Your task to perform on an android device: Set the phone to "Do not disturb". Image 0: 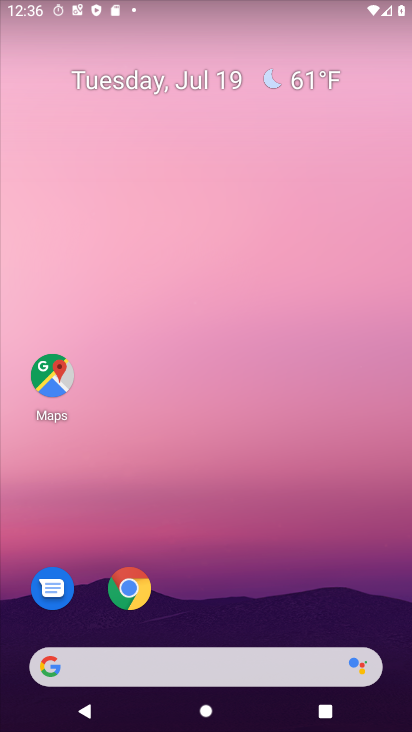
Step 0: drag from (305, 529) to (276, 102)
Your task to perform on an android device: Set the phone to "Do not disturb". Image 1: 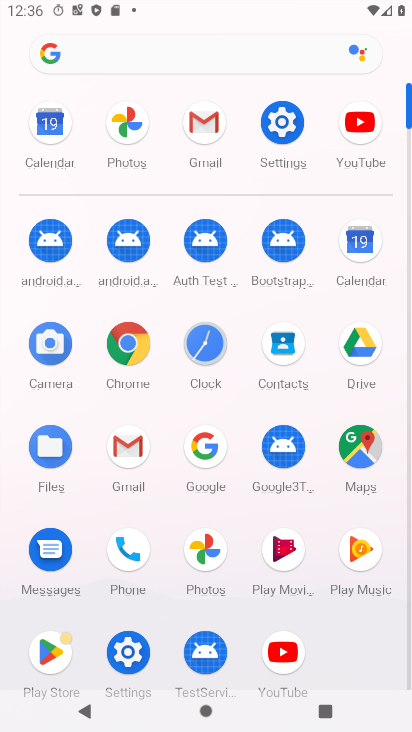
Step 1: click (130, 641)
Your task to perform on an android device: Set the phone to "Do not disturb". Image 2: 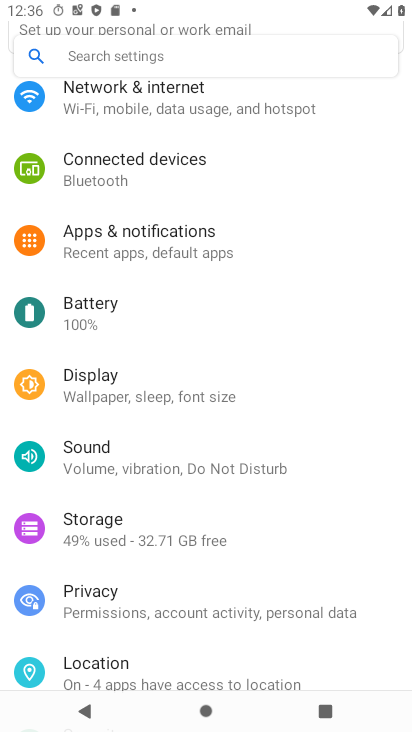
Step 2: click (127, 462)
Your task to perform on an android device: Set the phone to "Do not disturb". Image 3: 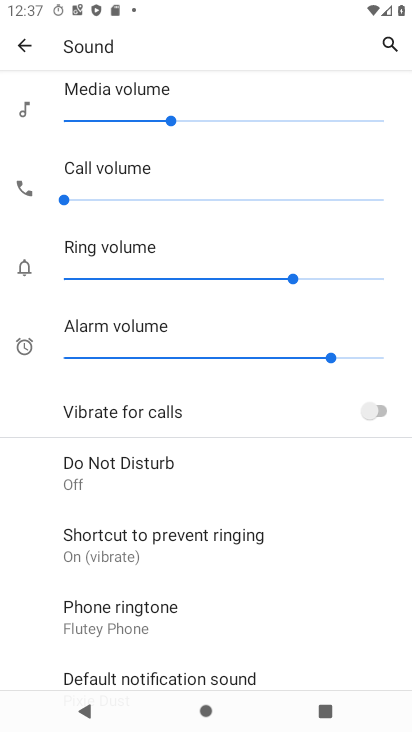
Step 3: click (104, 478)
Your task to perform on an android device: Set the phone to "Do not disturb". Image 4: 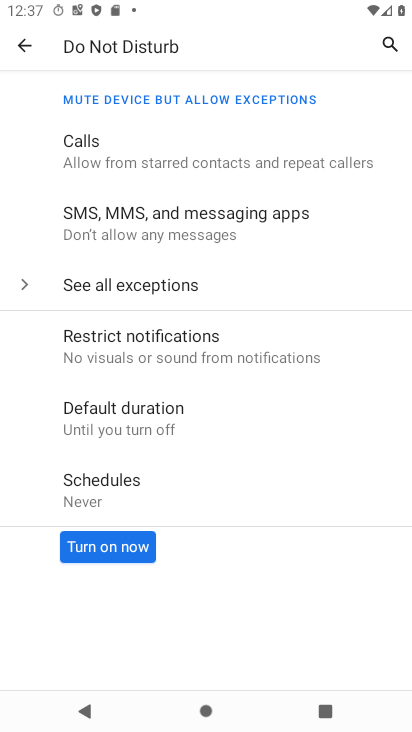
Step 4: click (120, 539)
Your task to perform on an android device: Set the phone to "Do not disturb". Image 5: 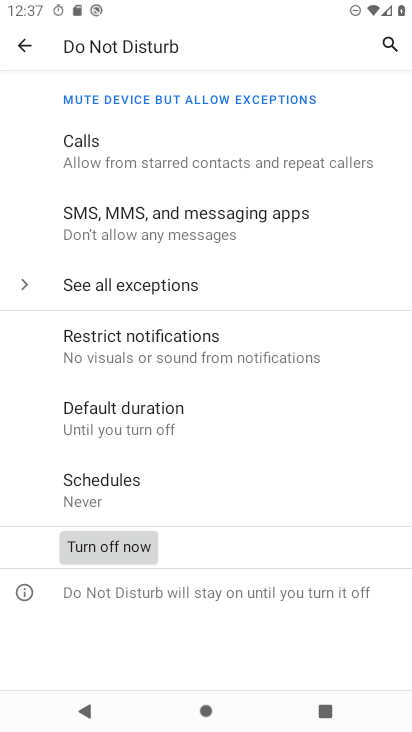
Step 5: task complete